Your task to perform on an android device: clear all cookies in the chrome app Image 0: 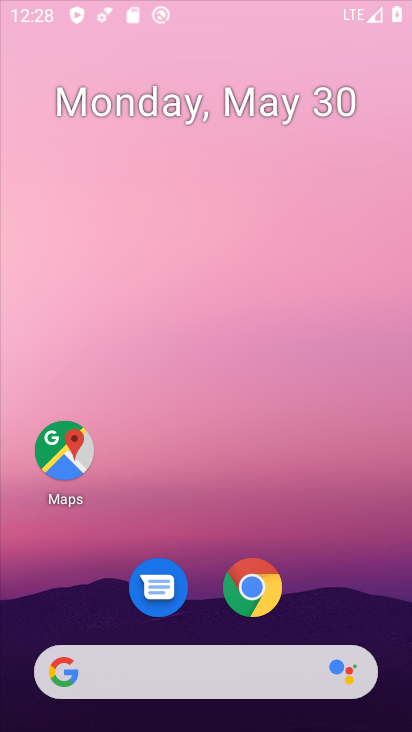
Step 0: press home button
Your task to perform on an android device: clear all cookies in the chrome app Image 1: 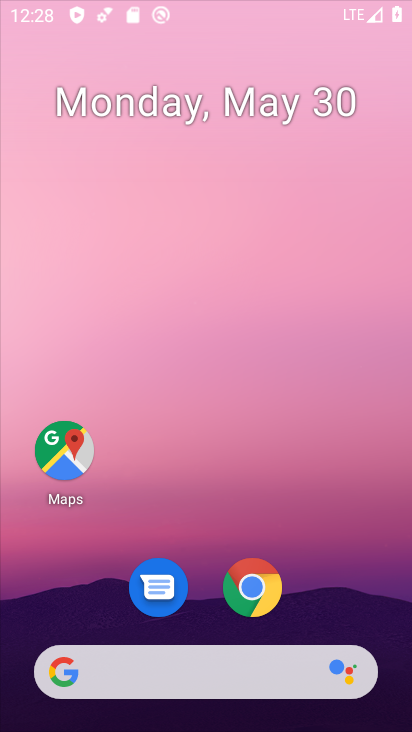
Step 1: drag from (258, 588) to (318, 483)
Your task to perform on an android device: clear all cookies in the chrome app Image 2: 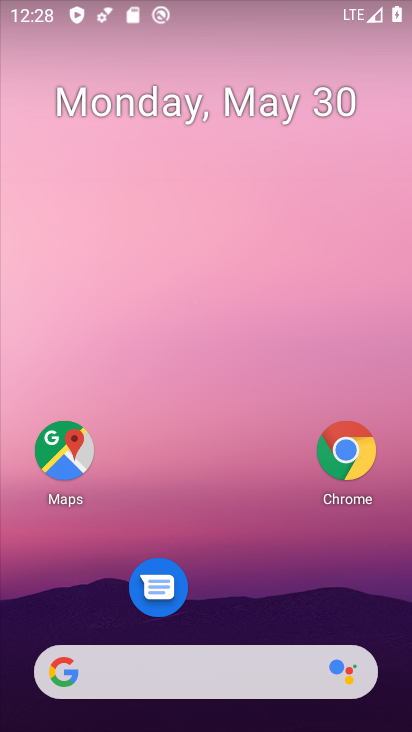
Step 2: click (328, 431)
Your task to perform on an android device: clear all cookies in the chrome app Image 3: 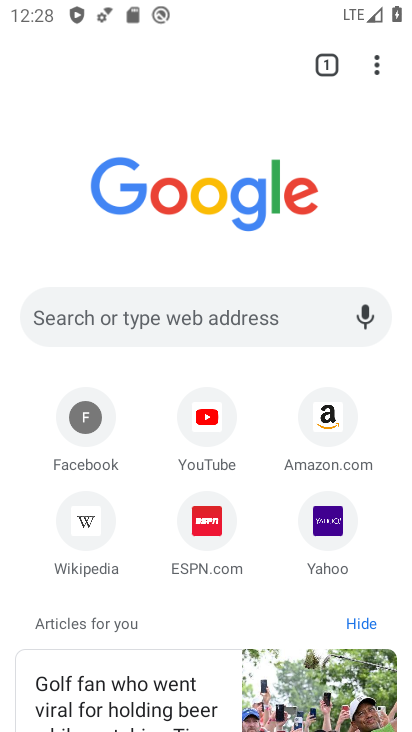
Step 3: click (368, 66)
Your task to perform on an android device: clear all cookies in the chrome app Image 4: 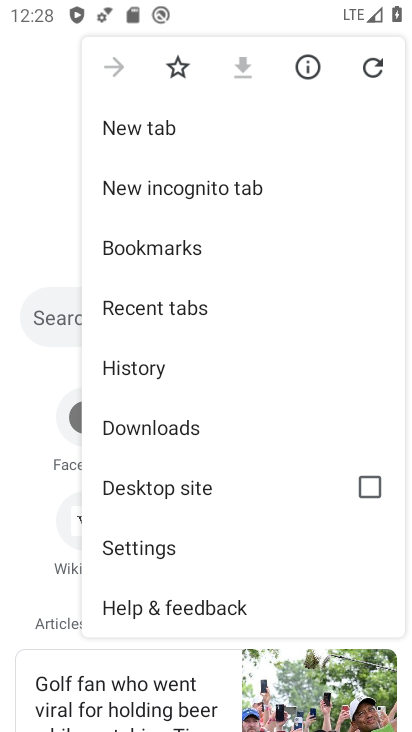
Step 4: click (203, 558)
Your task to perform on an android device: clear all cookies in the chrome app Image 5: 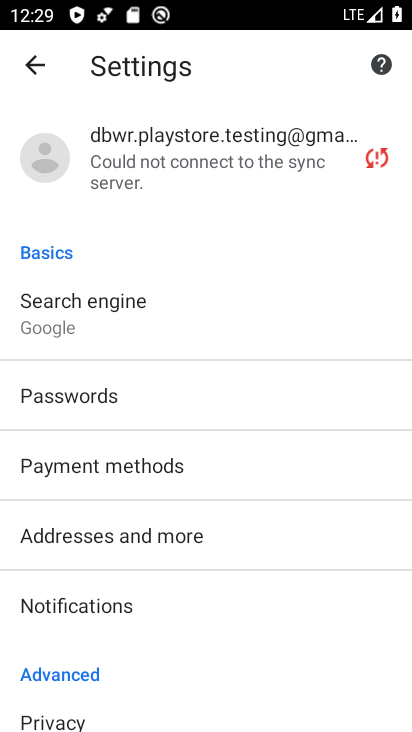
Step 5: drag from (249, 559) to (389, 12)
Your task to perform on an android device: clear all cookies in the chrome app Image 6: 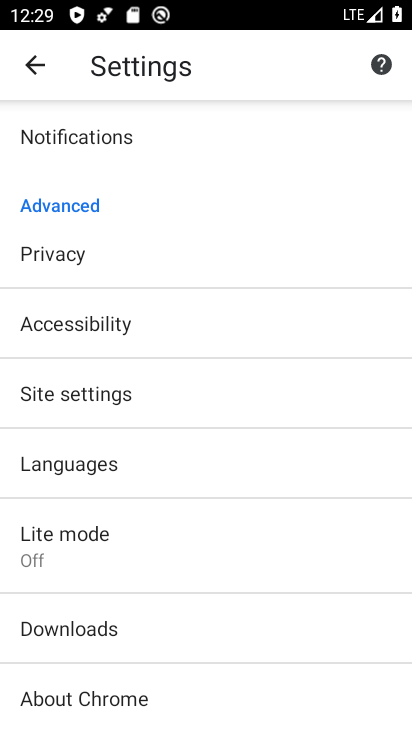
Step 6: click (103, 387)
Your task to perform on an android device: clear all cookies in the chrome app Image 7: 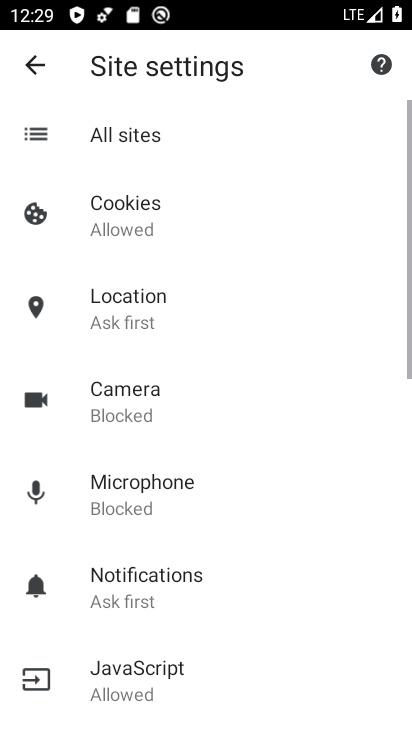
Step 7: press back button
Your task to perform on an android device: clear all cookies in the chrome app Image 8: 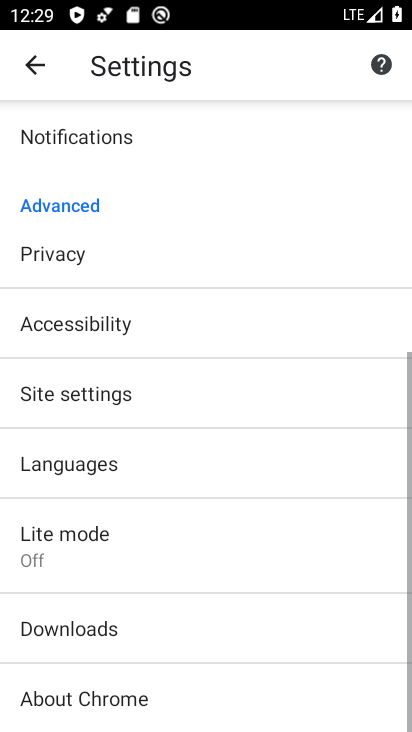
Step 8: click (73, 271)
Your task to perform on an android device: clear all cookies in the chrome app Image 9: 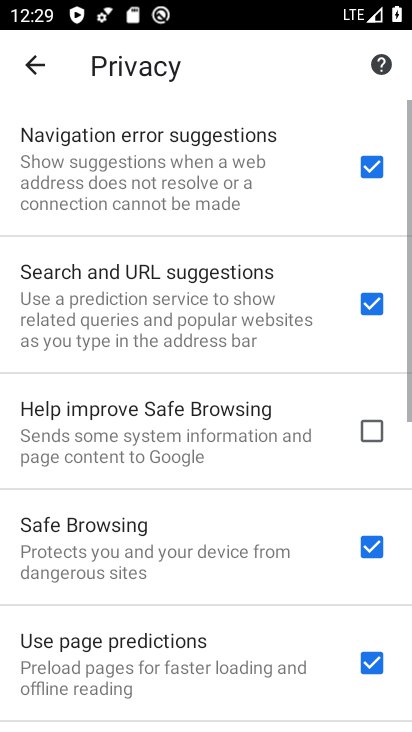
Step 9: drag from (190, 616) to (184, 10)
Your task to perform on an android device: clear all cookies in the chrome app Image 10: 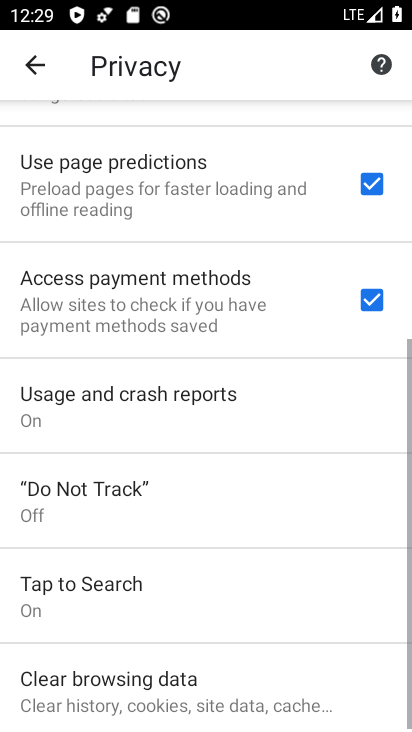
Step 10: click (181, 666)
Your task to perform on an android device: clear all cookies in the chrome app Image 11: 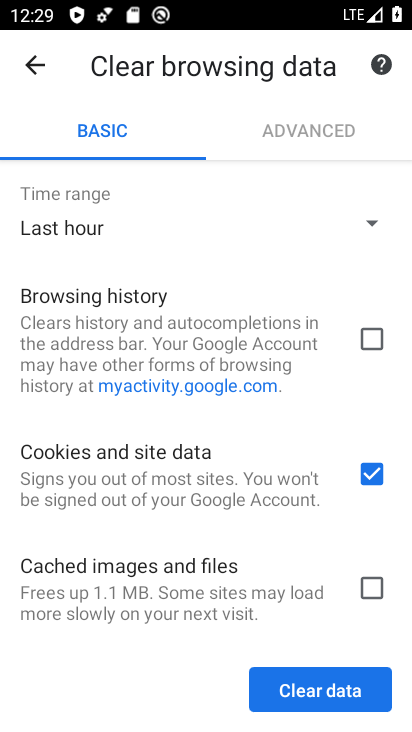
Step 11: click (373, 477)
Your task to perform on an android device: clear all cookies in the chrome app Image 12: 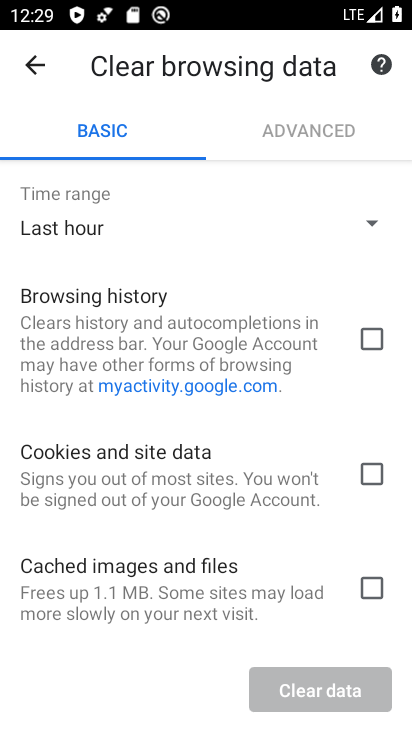
Step 12: click (369, 477)
Your task to perform on an android device: clear all cookies in the chrome app Image 13: 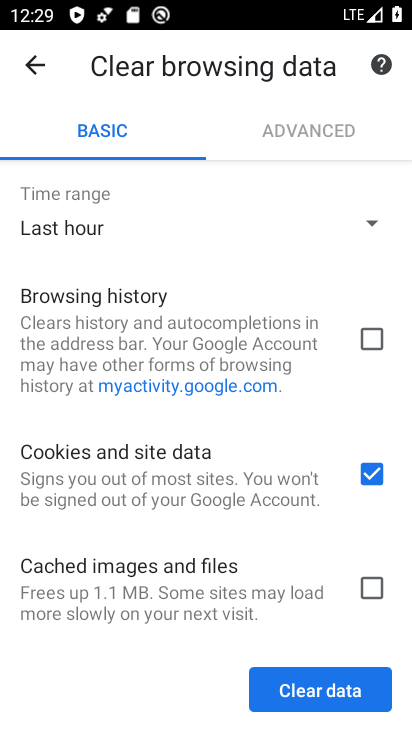
Step 13: click (332, 694)
Your task to perform on an android device: clear all cookies in the chrome app Image 14: 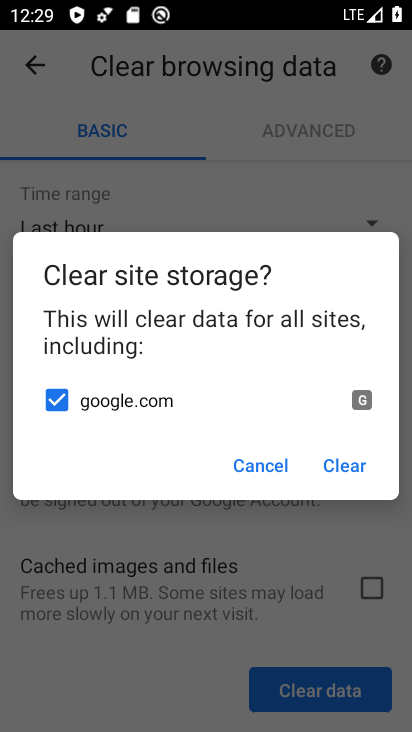
Step 14: click (361, 448)
Your task to perform on an android device: clear all cookies in the chrome app Image 15: 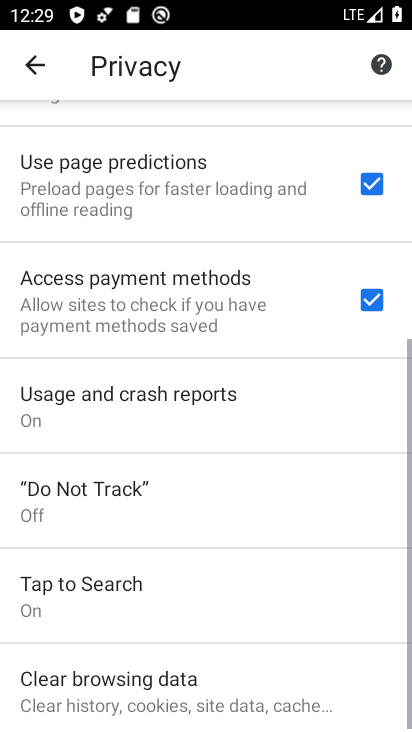
Step 15: task complete